Your task to perform on an android device: Go to Android settings Image 0: 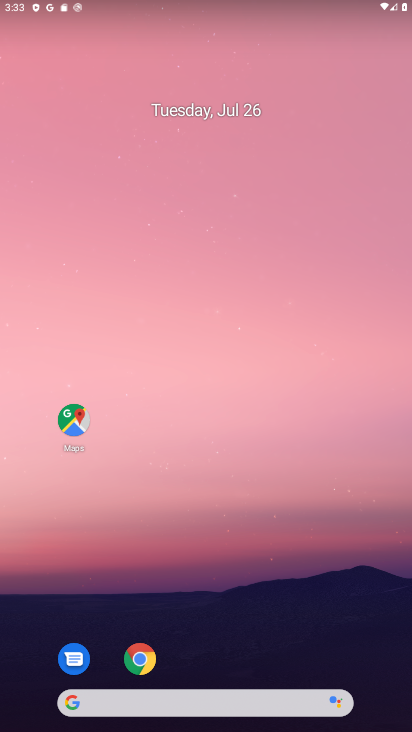
Step 0: press home button
Your task to perform on an android device: Go to Android settings Image 1: 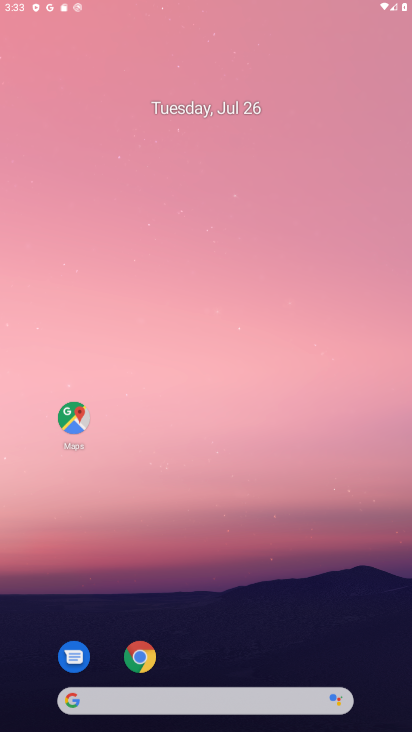
Step 1: drag from (282, 528) to (289, 34)
Your task to perform on an android device: Go to Android settings Image 2: 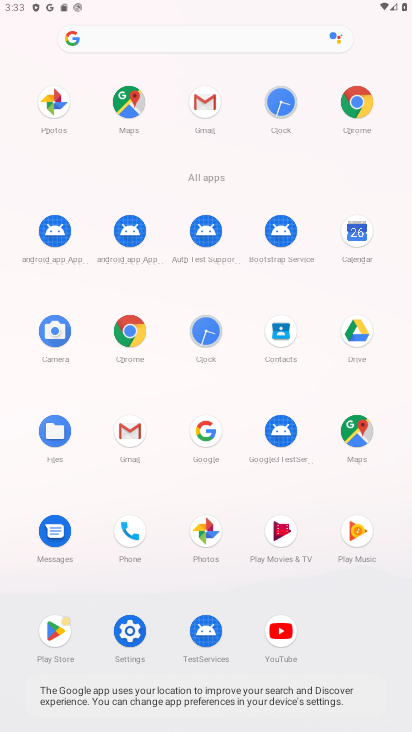
Step 2: drag from (347, 643) to (365, 305)
Your task to perform on an android device: Go to Android settings Image 3: 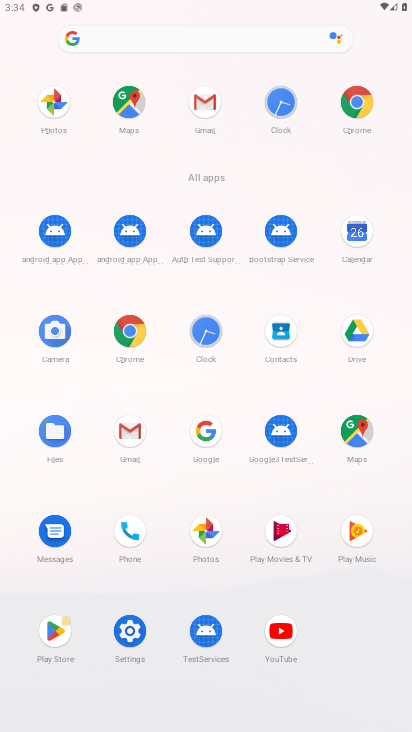
Step 3: click (129, 629)
Your task to perform on an android device: Go to Android settings Image 4: 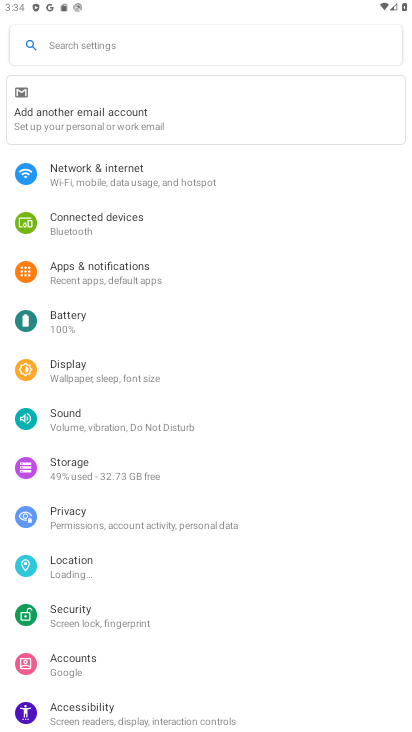
Step 4: task complete